Your task to perform on an android device: Is it going to rain tomorrow? Image 0: 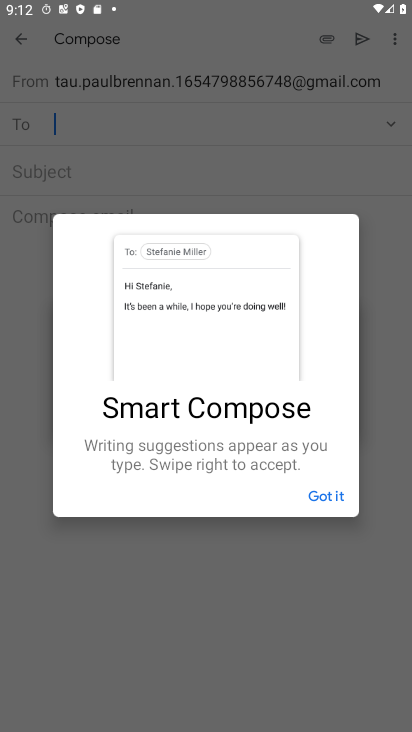
Step 0: click (322, 485)
Your task to perform on an android device: Is it going to rain tomorrow? Image 1: 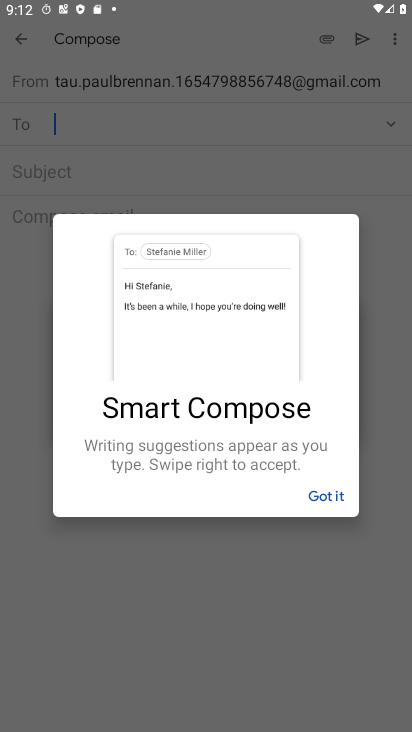
Step 1: click (322, 487)
Your task to perform on an android device: Is it going to rain tomorrow? Image 2: 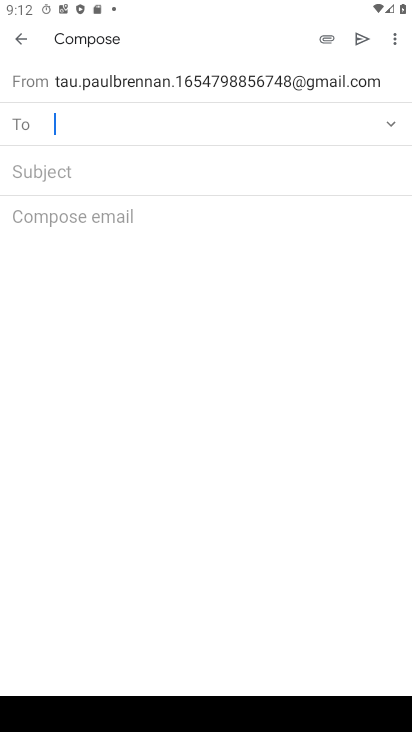
Step 2: click (16, 37)
Your task to perform on an android device: Is it going to rain tomorrow? Image 3: 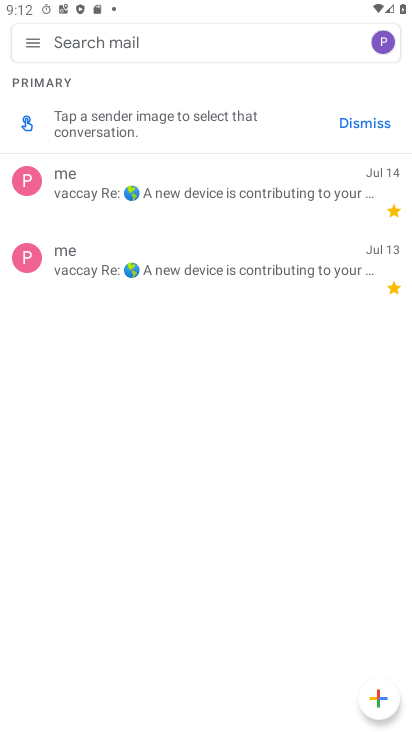
Step 3: press back button
Your task to perform on an android device: Is it going to rain tomorrow? Image 4: 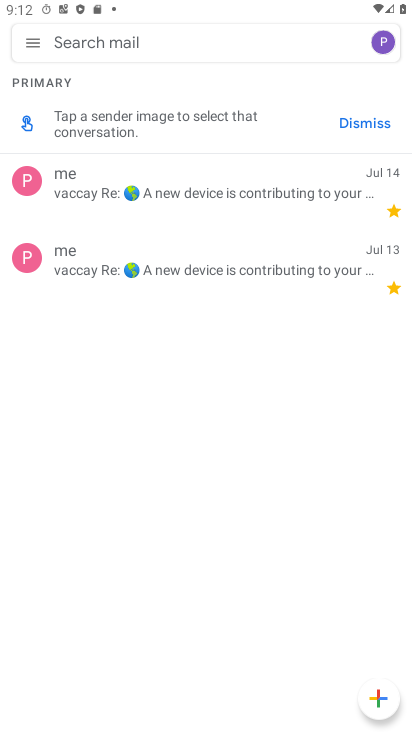
Step 4: press back button
Your task to perform on an android device: Is it going to rain tomorrow? Image 5: 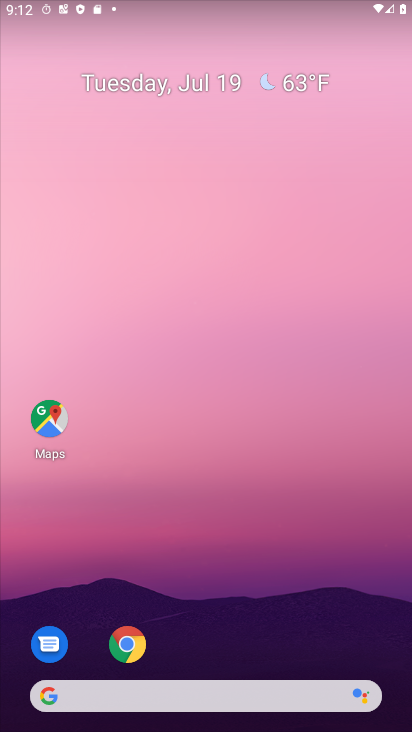
Step 5: drag from (243, 470) to (205, 110)
Your task to perform on an android device: Is it going to rain tomorrow? Image 6: 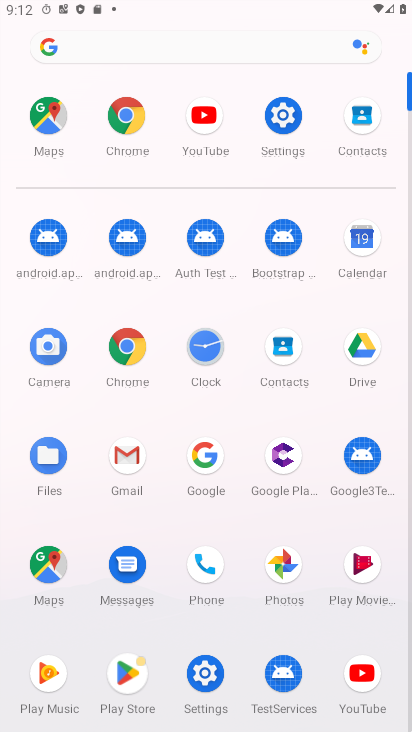
Step 6: click (138, 121)
Your task to perform on an android device: Is it going to rain tomorrow? Image 7: 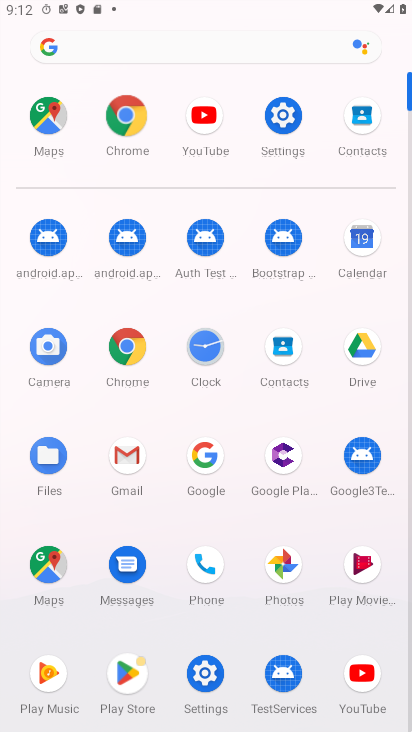
Step 7: click (127, 118)
Your task to perform on an android device: Is it going to rain tomorrow? Image 8: 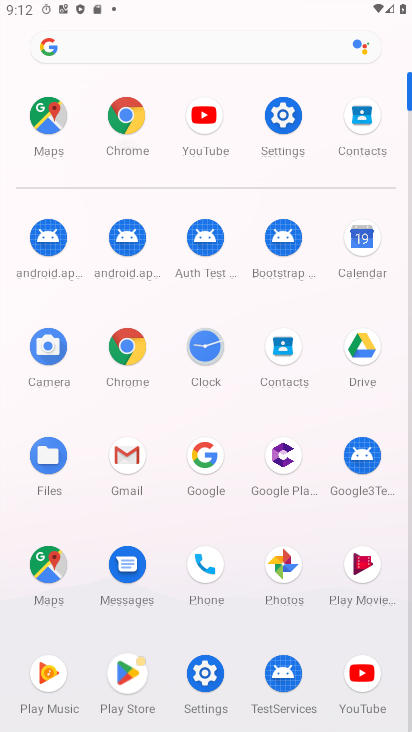
Step 8: click (127, 118)
Your task to perform on an android device: Is it going to rain tomorrow? Image 9: 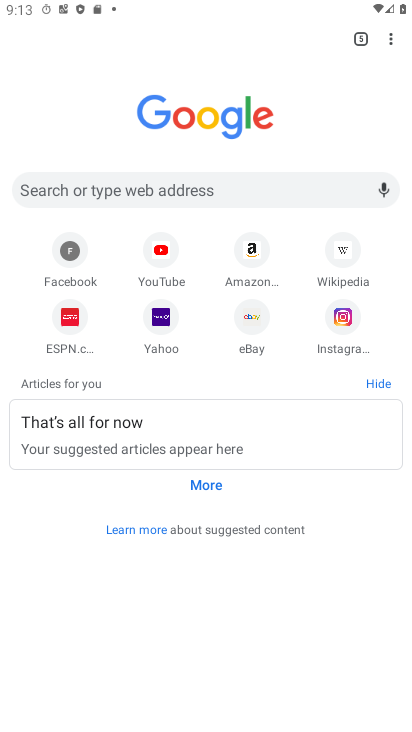
Step 9: click (85, 174)
Your task to perform on an android device: Is it going to rain tomorrow? Image 10: 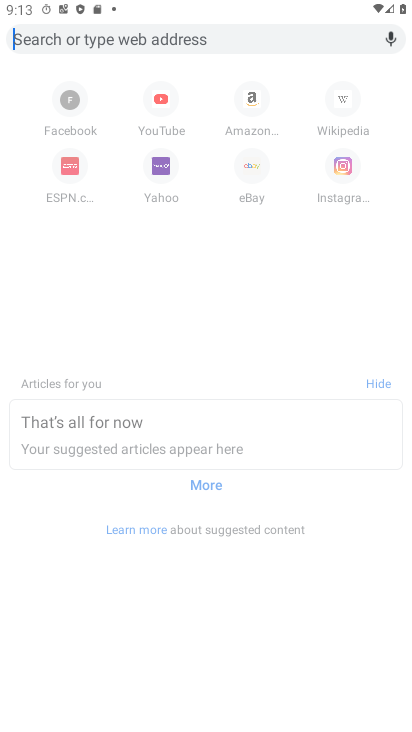
Step 10: click (85, 174)
Your task to perform on an android device: Is it going to rain tomorrow? Image 11: 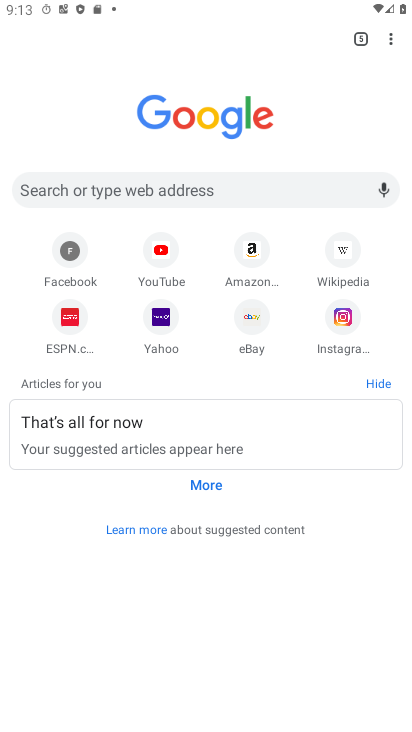
Step 11: click (45, 180)
Your task to perform on an android device: Is it going to rain tomorrow? Image 12: 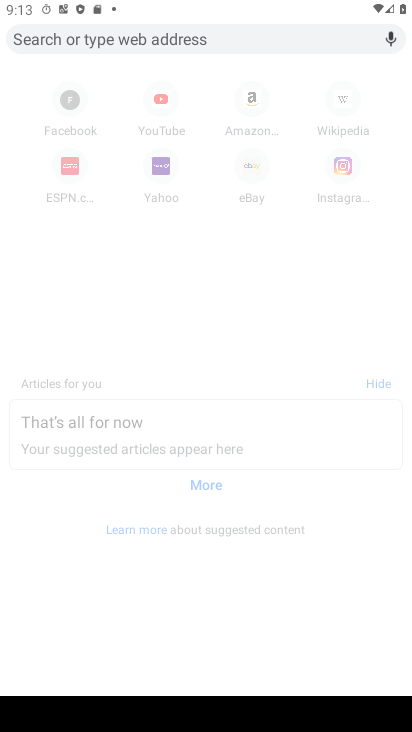
Step 12: type "is it going to rain tomorrow?"
Your task to perform on an android device: Is it going to rain tomorrow? Image 13: 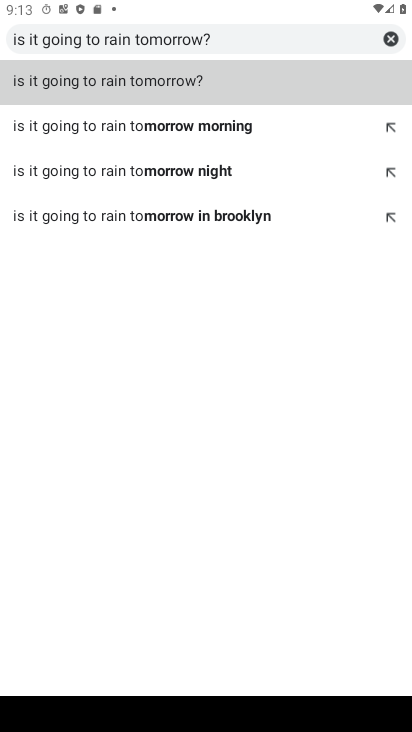
Step 13: click (191, 81)
Your task to perform on an android device: Is it going to rain tomorrow? Image 14: 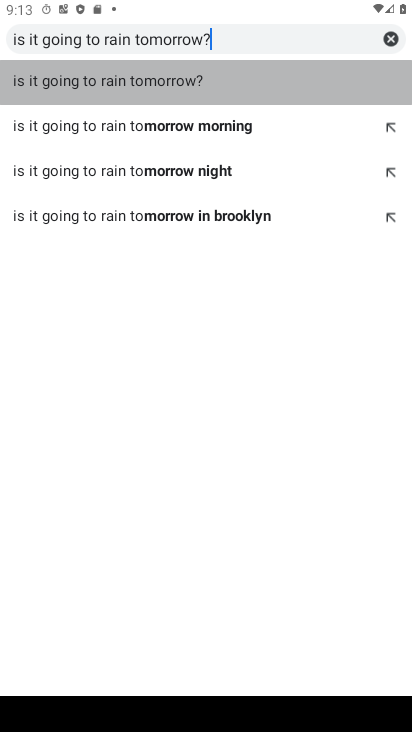
Step 14: click (191, 81)
Your task to perform on an android device: Is it going to rain tomorrow? Image 15: 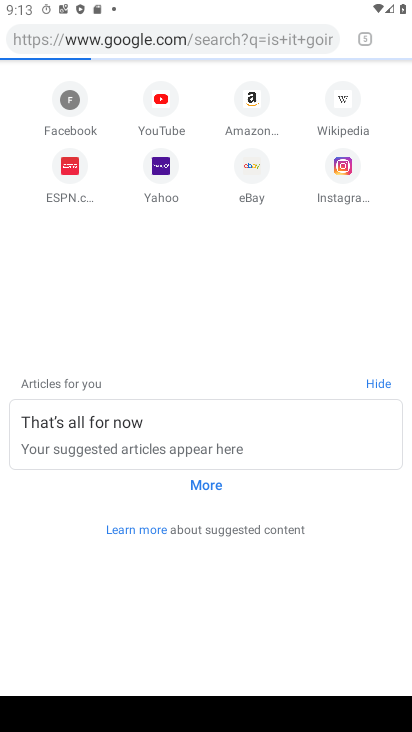
Step 15: click (191, 81)
Your task to perform on an android device: Is it going to rain tomorrow? Image 16: 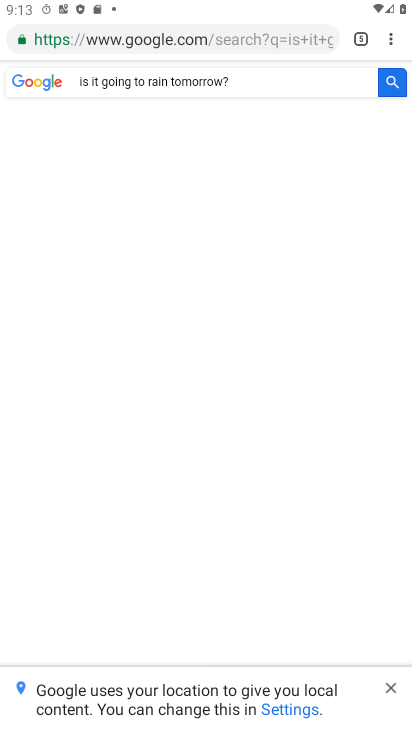
Step 16: task complete